Your task to perform on an android device: refresh tabs in the chrome app Image 0: 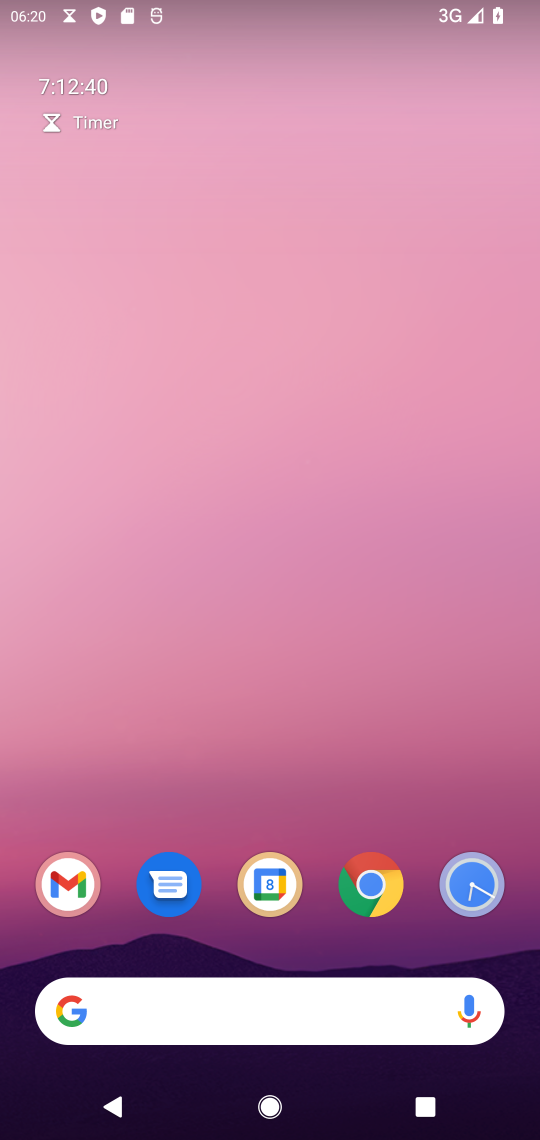
Step 0: drag from (384, 798) to (326, 23)
Your task to perform on an android device: refresh tabs in the chrome app Image 1: 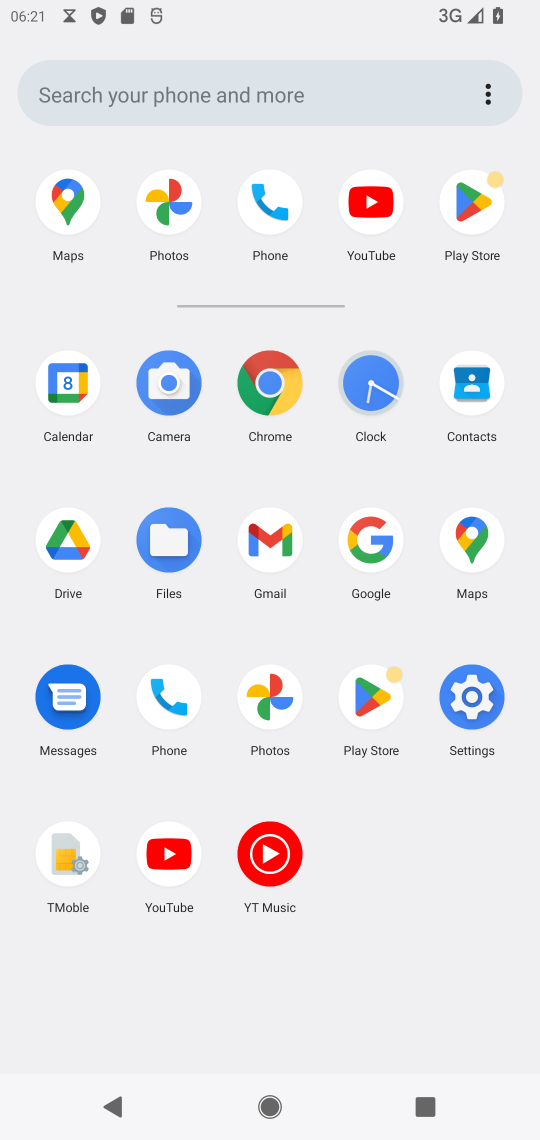
Step 1: click (275, 386)
Your task to perform on an android device: refresh tabs in the chrome app Image 2: 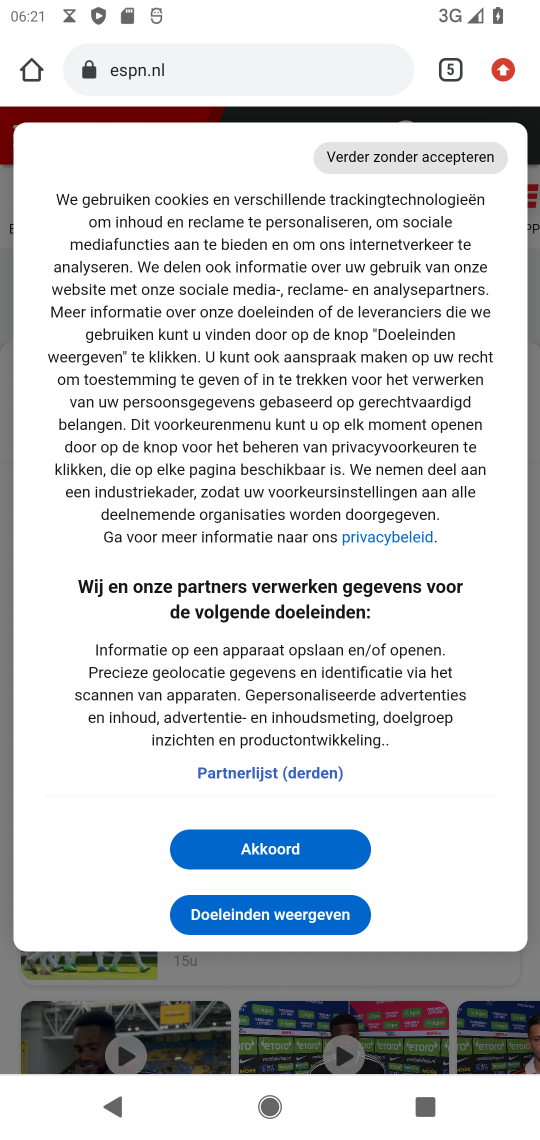
Step 2: click (494, 88)
Your task to perform on an android device: refresh tabs in the chrome app Image 3: 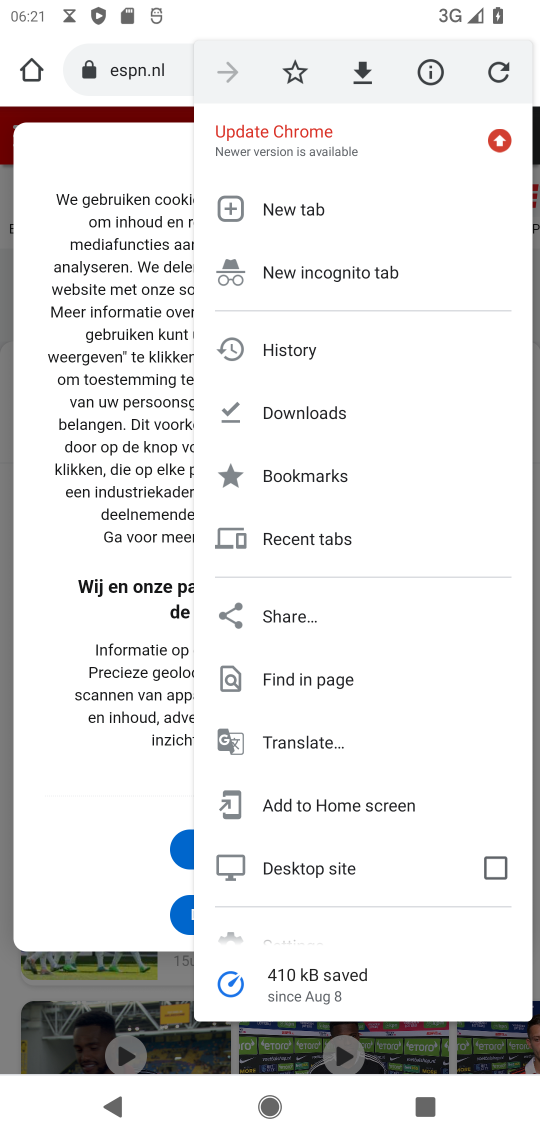
Step 3: click (494, 88)
Your task to perform on an android device: refresh tabs in the chrome app Image 4: 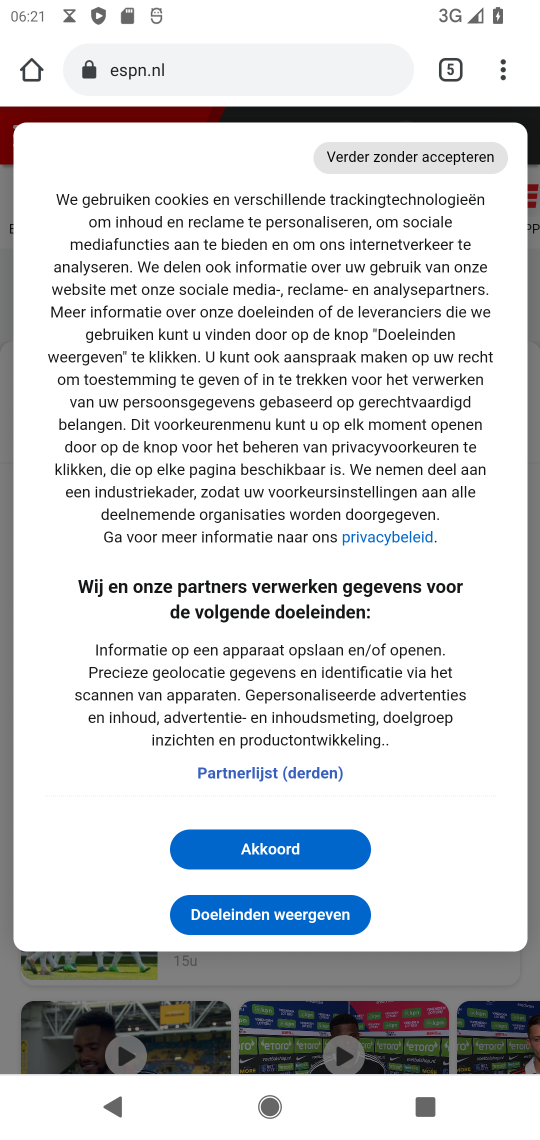
Step 4: task complete